Your task to perform on an android device: Go to ESPN.com Image 0: 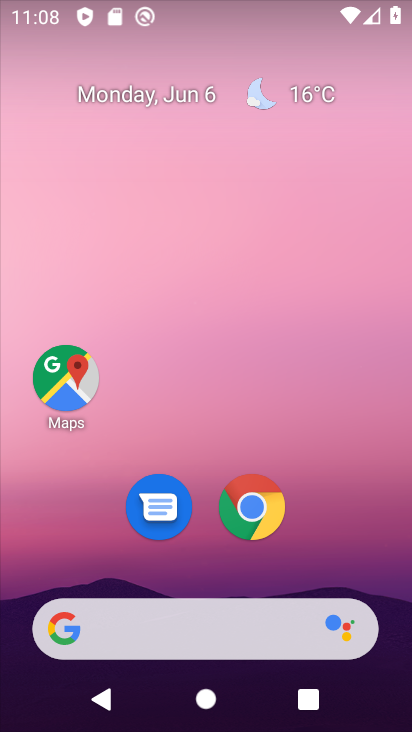
Step 0: drag from (202, 233) to (196, 138)
Your task to perform on an android device: Go to ESPN.com Image 1: 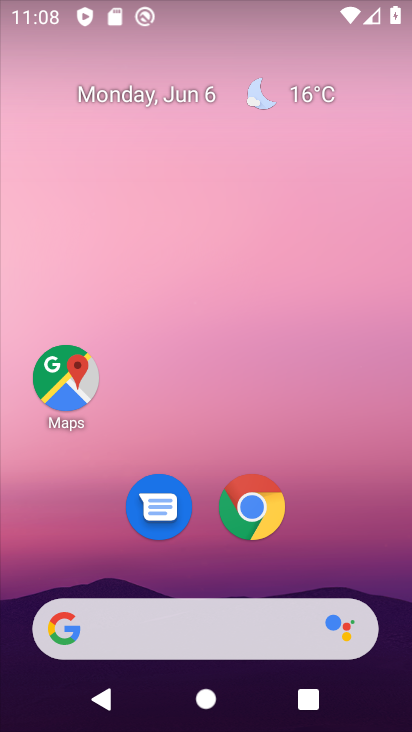
Step 1: drag from (296, 537) to (296, 42)
Your task to perform on an android device: Go to ESPN.com Image 2: 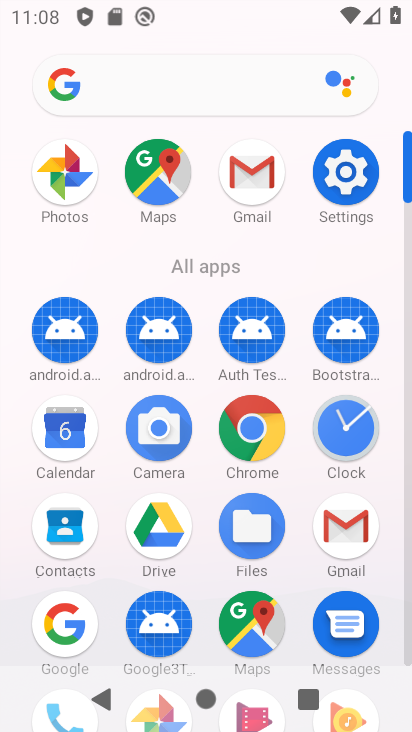
Step 2: click (74, 619)
Your task to perform on an android device: Go to ESPN.com Image 3: 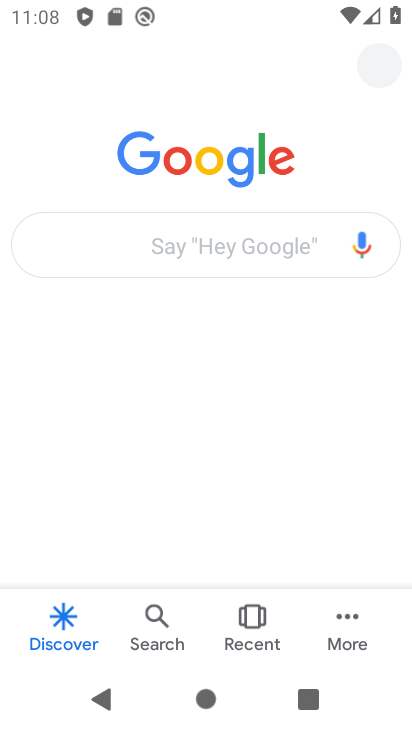
Step 3: click (152, 249)
Your task to perform on an android device: Go to ESPN.com Image 4: 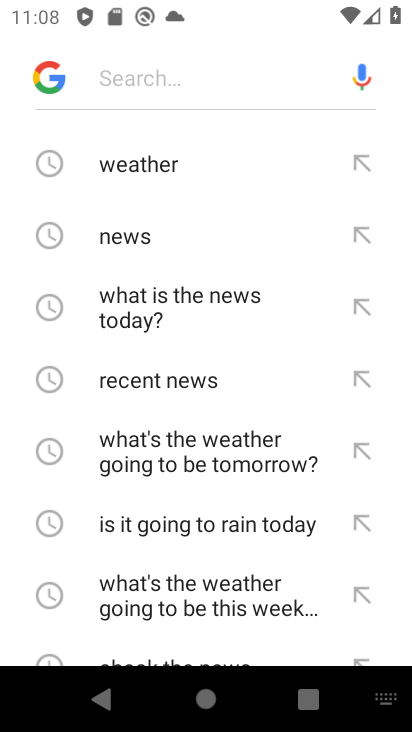
Step 4: type "espn.com"
Your task to perform on an android device: Go to ESPN.com Image 5: 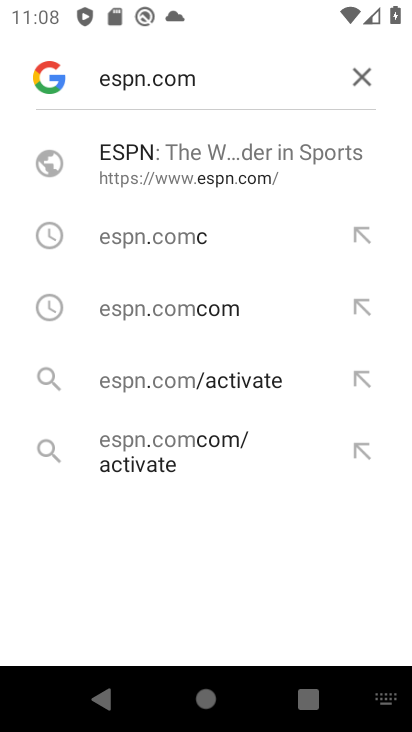
Step 5: click (222, 160)
Your task to perform on an android device: Go to ESPN.com Image 6: 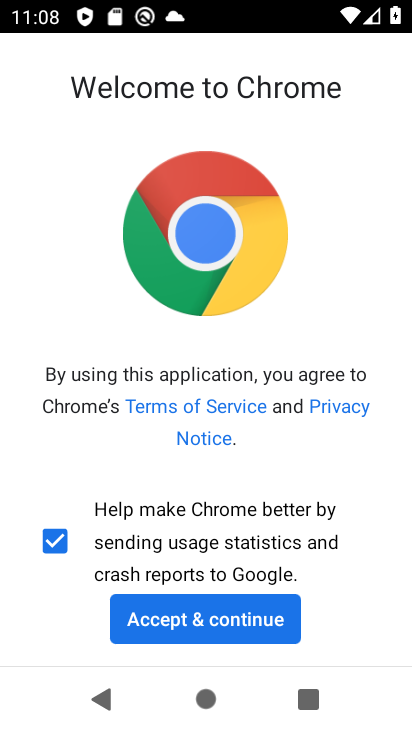
Step 6: click (210, 628)
Your task to perform on an android device: Go to ESPN.com Image 7: 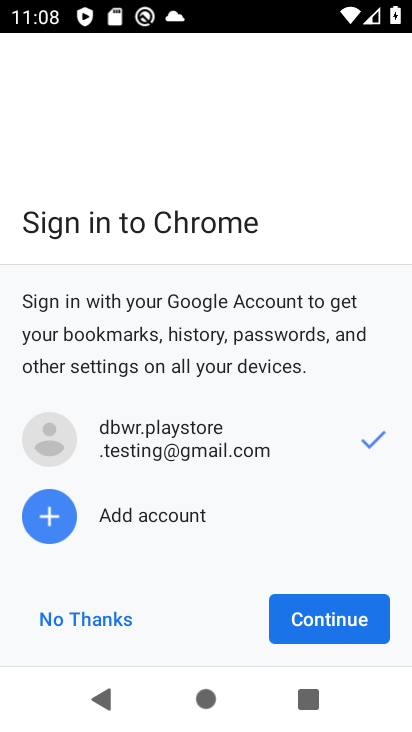
Step 7: click (334, 635)
Your task to perform on an android device: Go to ESPN.com Image 8: 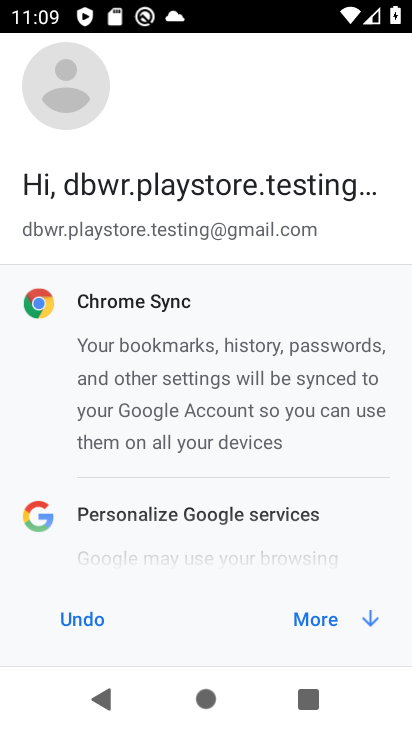
Step 8: click (324, 622)
Your task to perform on an android device: Go to ESPN.com Image 9: 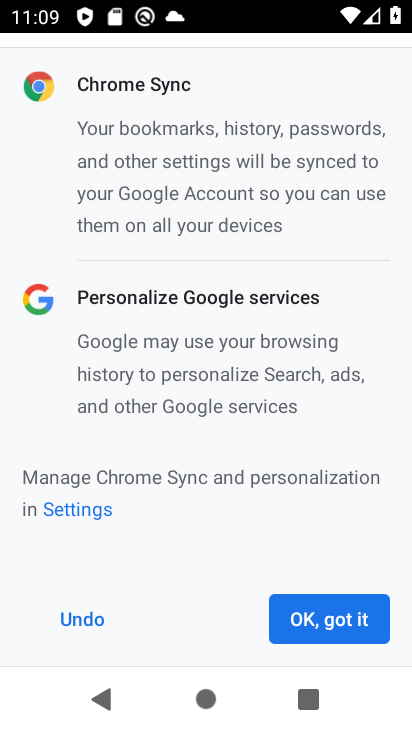
Step 9: click (325, 624)
Your task to perform on an android device: Go to ESPN.com Image 10: 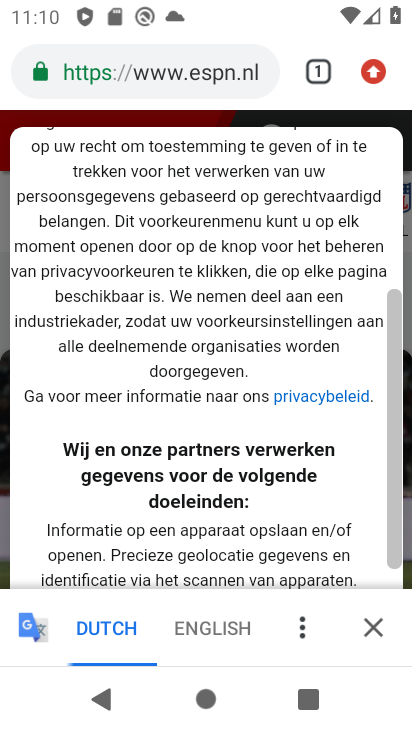
Step 10: task complete